Your task to perform on an android device: Open Google Maps Image 0: 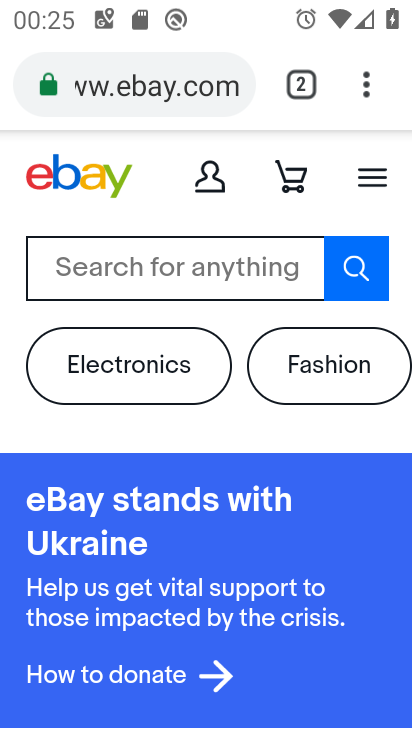
Step 0: drag from (212, 584) to (208, 326)
Your task to perform on an android device: Open Google Maps Image 1: 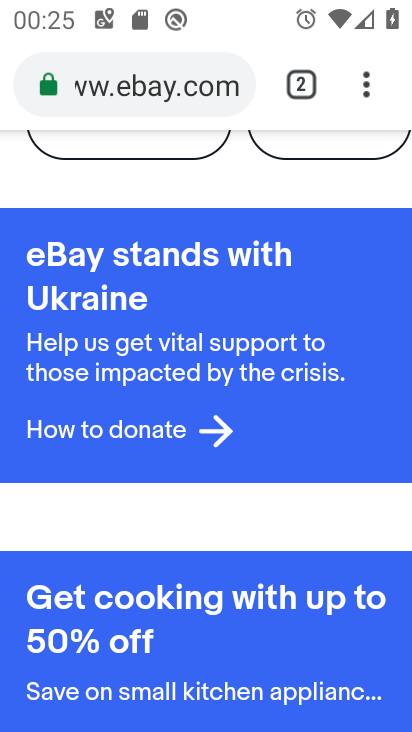
Step 1: press home button
Your task to perform on an android device: Open Google Maps Image 2: 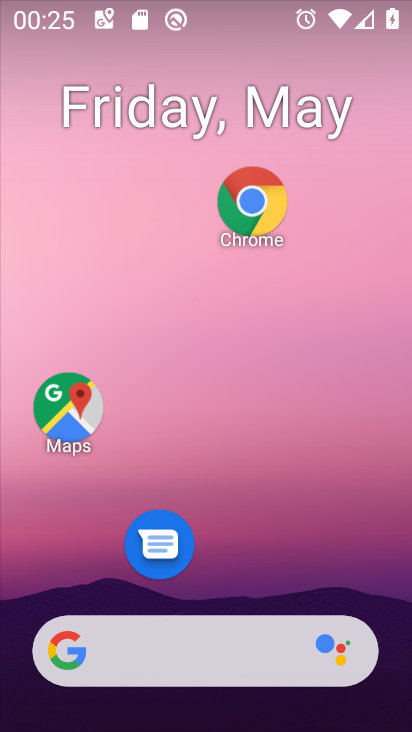
Step 2: drag from (222, 573) to (221, 119)
Your task to perform on an android device: Open Google Maps Image 3: 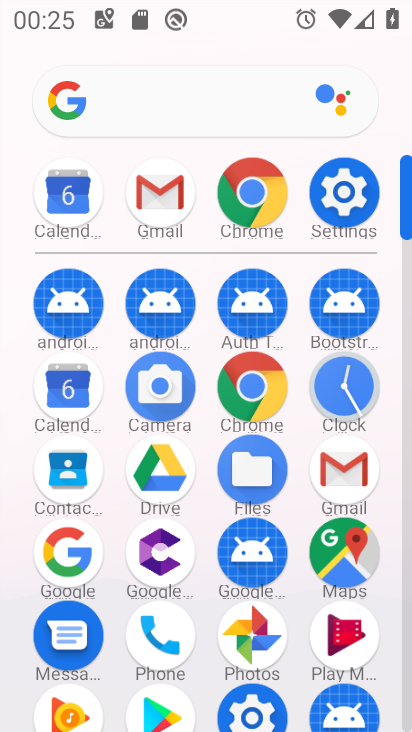
Step 3: click (347, 551)
Your task to perform on an android device: Open Google Maps Image 4: 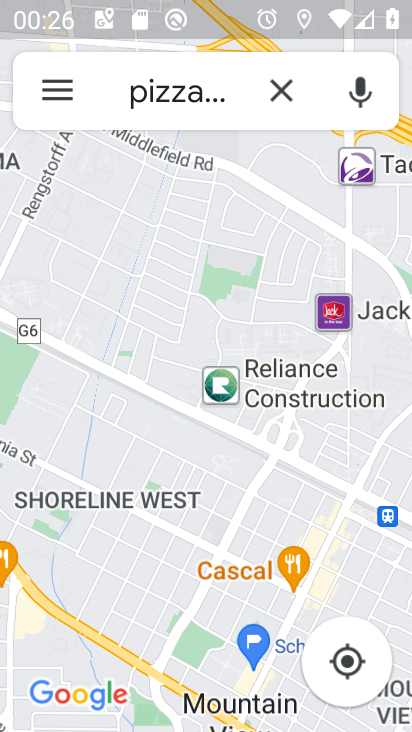
Step 4: click (283, 99)
Your task to perform on an android device: Open Google Maps Image 5: 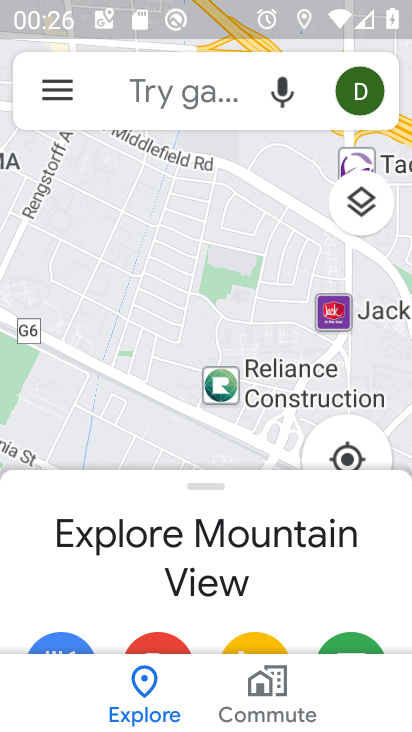
Step 5: task complete